Your task to perform on an android device: Open Google Chrome Image 0: 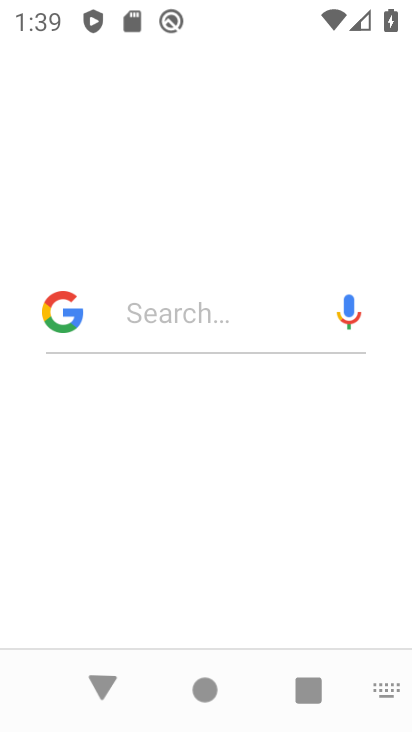
Step 0: click (337, 446)
Your task to perform on an android device: Open Google Chrome Image 1: 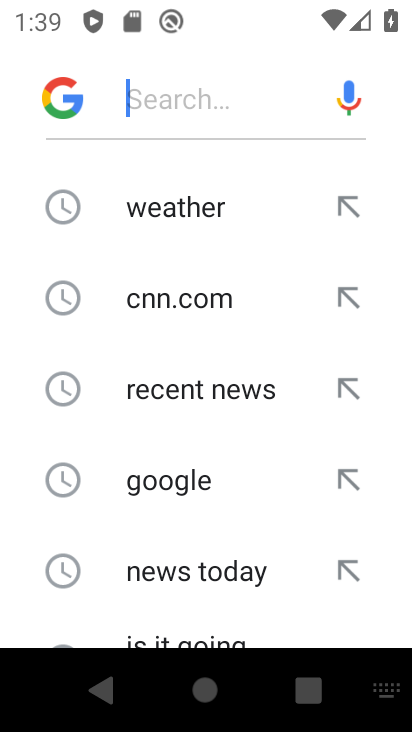
Step 1: press home button
Your task to perform on an android device: Open Google Chrome Image 2: 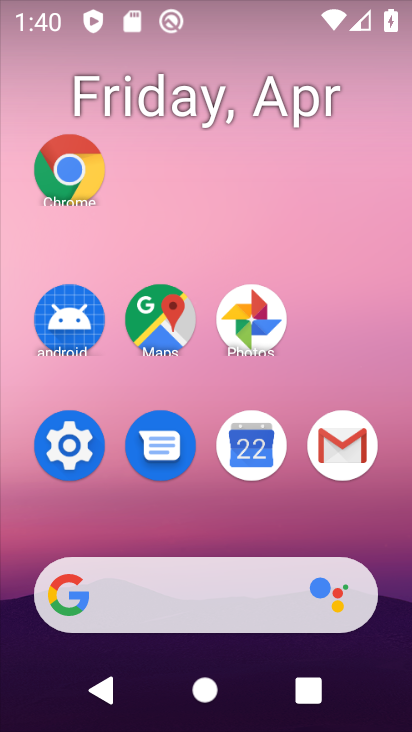
Step 2: click (66, 170)
Your task to perform on an android device: Open Google Chrome Image 3: 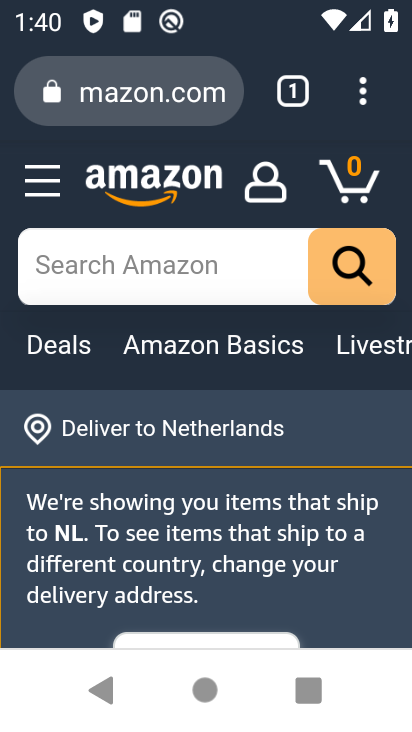
Step 3: task complete